Your task to perform on an android device: turn off javascript in the chrome app Image 0: 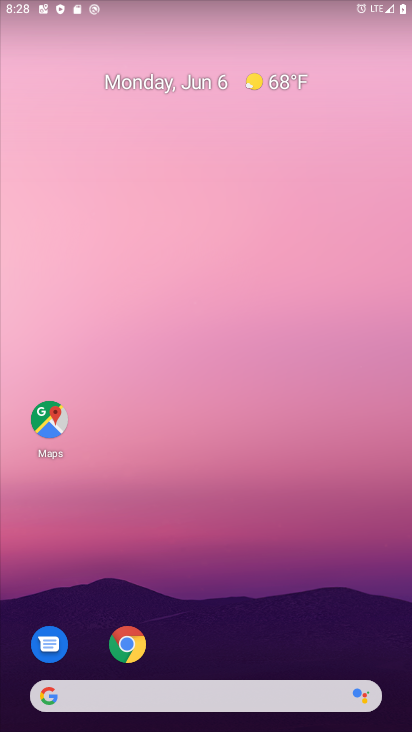
Step 0: press home button
Your task to perform on an android device: turn off javascript in the chrome app Image 1: 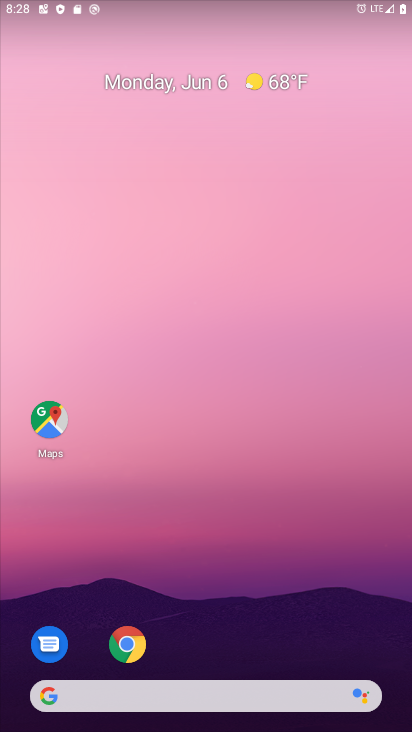
Step 1: drag from (260, 722) to (321, 265)
Your task to perform on an android device: turn off javascript in the chrome app Image 2: 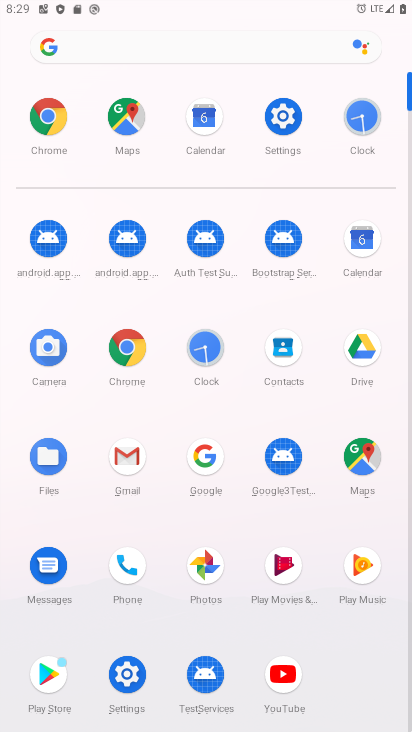
Step 2: click (46, 119)
Your task to perform on an android device: turn off javascript in the chrome app Image 3: 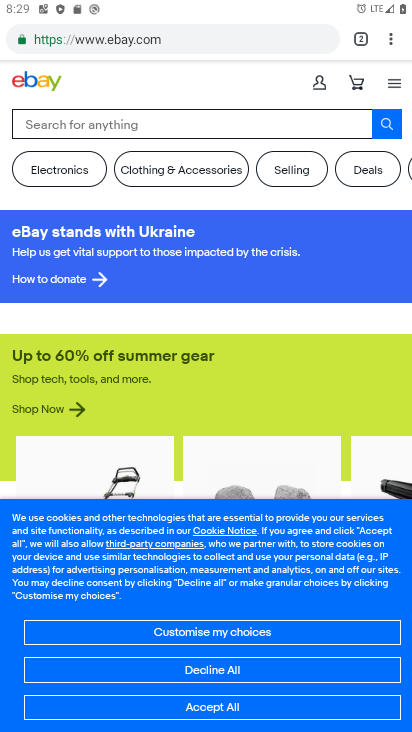
Step 3: click (386, 46)
Your task to perform on an android device: turn off javascript in the chrome app Image 4: 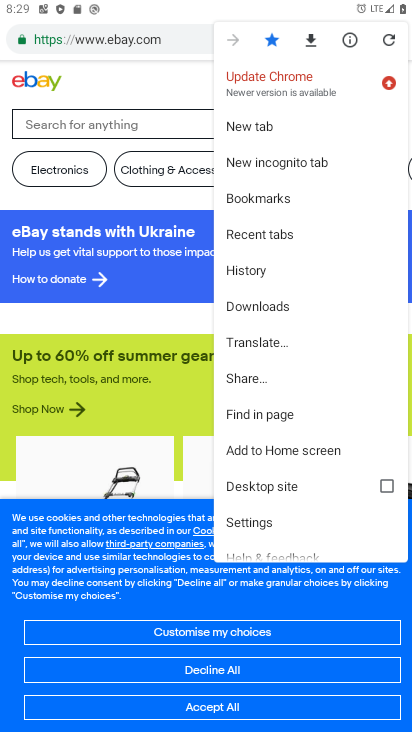
Step 4: click (259, 525)
Your task to perform on an android device: turn off javascript in the chrome app Image 5: 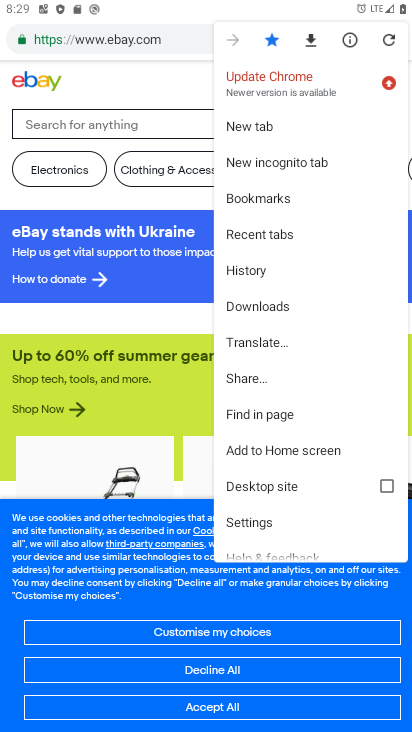
Step 5: click (259, 525)
Your task to perform on an android device: turn off javascript in the chrome app Image 6: 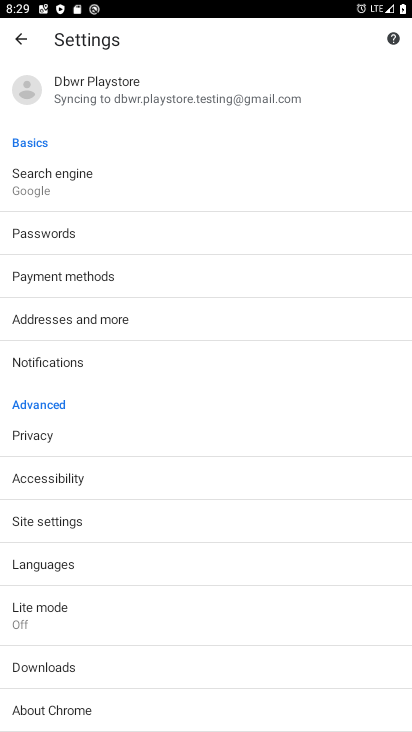
Step 6: click (64, 518)
Your task to perform on an android device: turn off javascript in the chrome app Image 7: 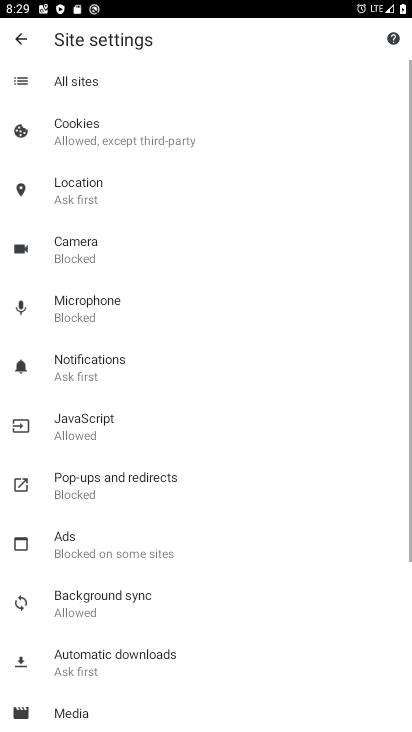
Step 7: click (125, 439)
Your task to perform on an android device: turn off javascript in the chrome app Image 8: 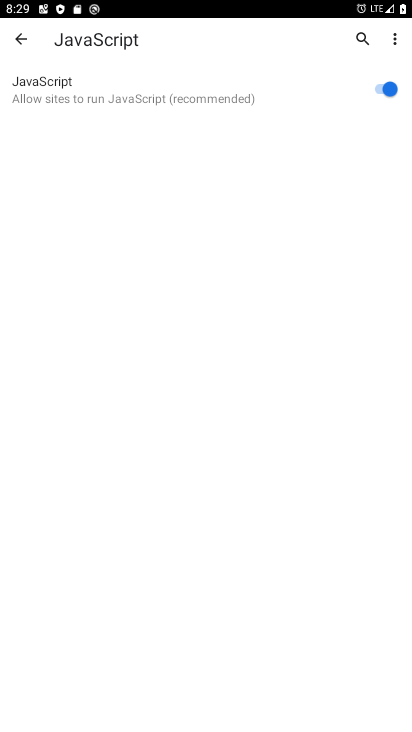
Step 8: task complete